Your task to perform on an android device: open wifi settings Image 0: 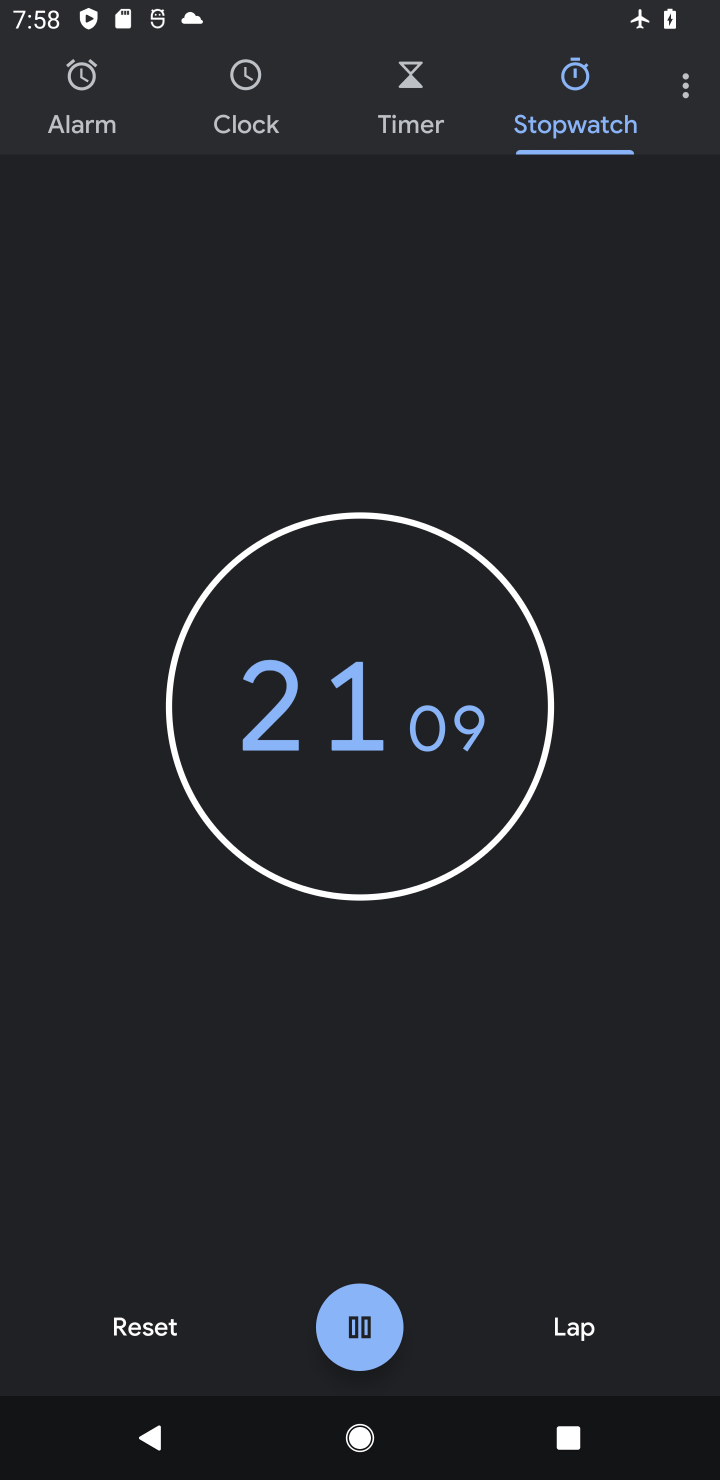
Step 0: press home button
Your task to perform on an android device: open wifi settings Image 1: 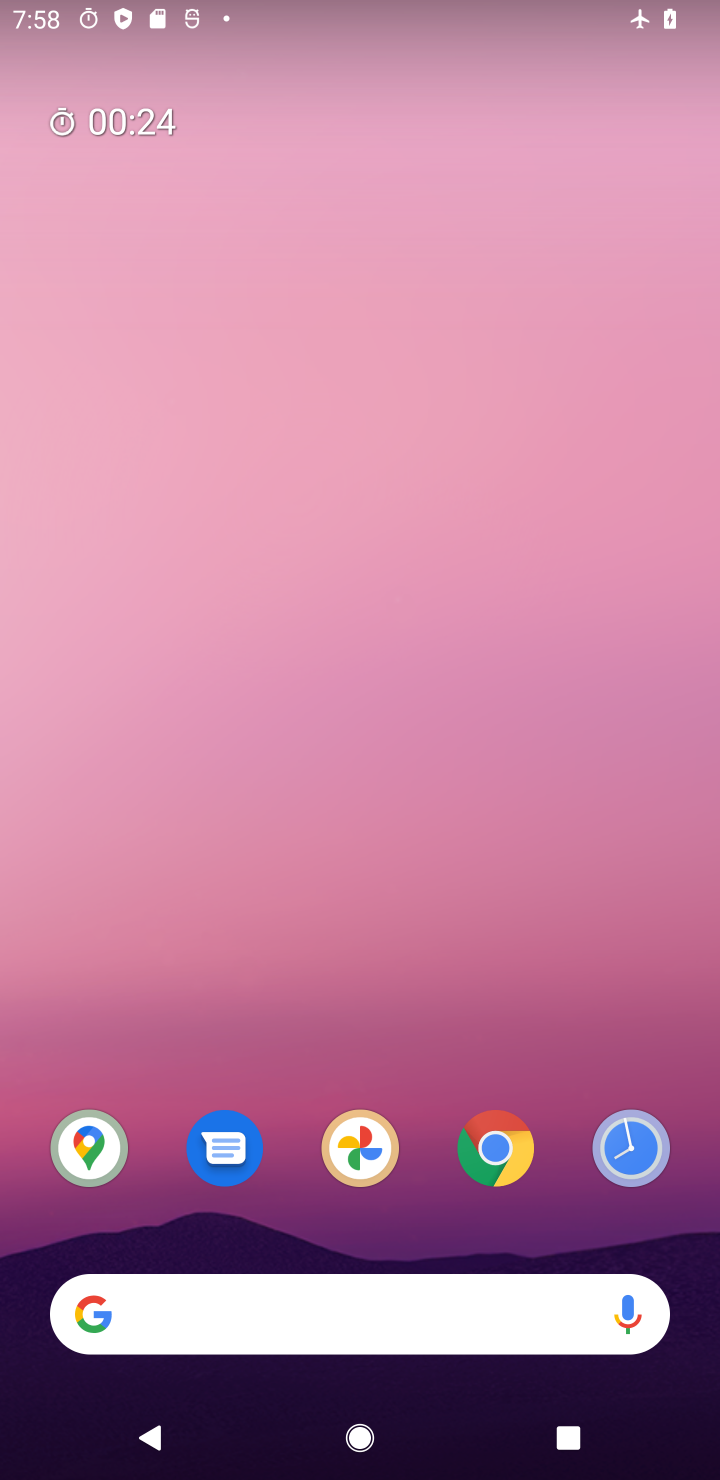
Step 1: drag from (692, 1079) to (460, 206)
Your task to perform on an android device: open wifi settings Image 2: 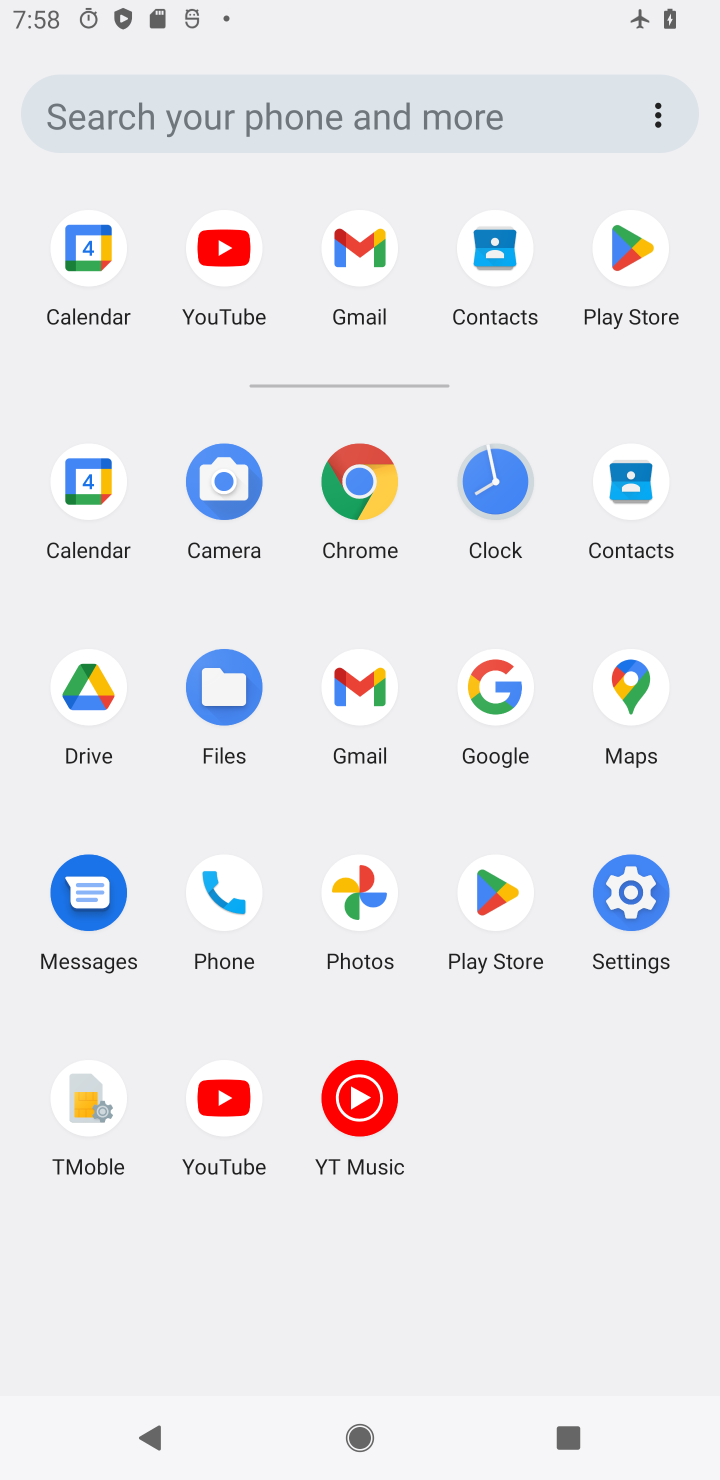
Step 2: click (653, 901)
Your task to perform on an android device: open wifi settings Image 3: 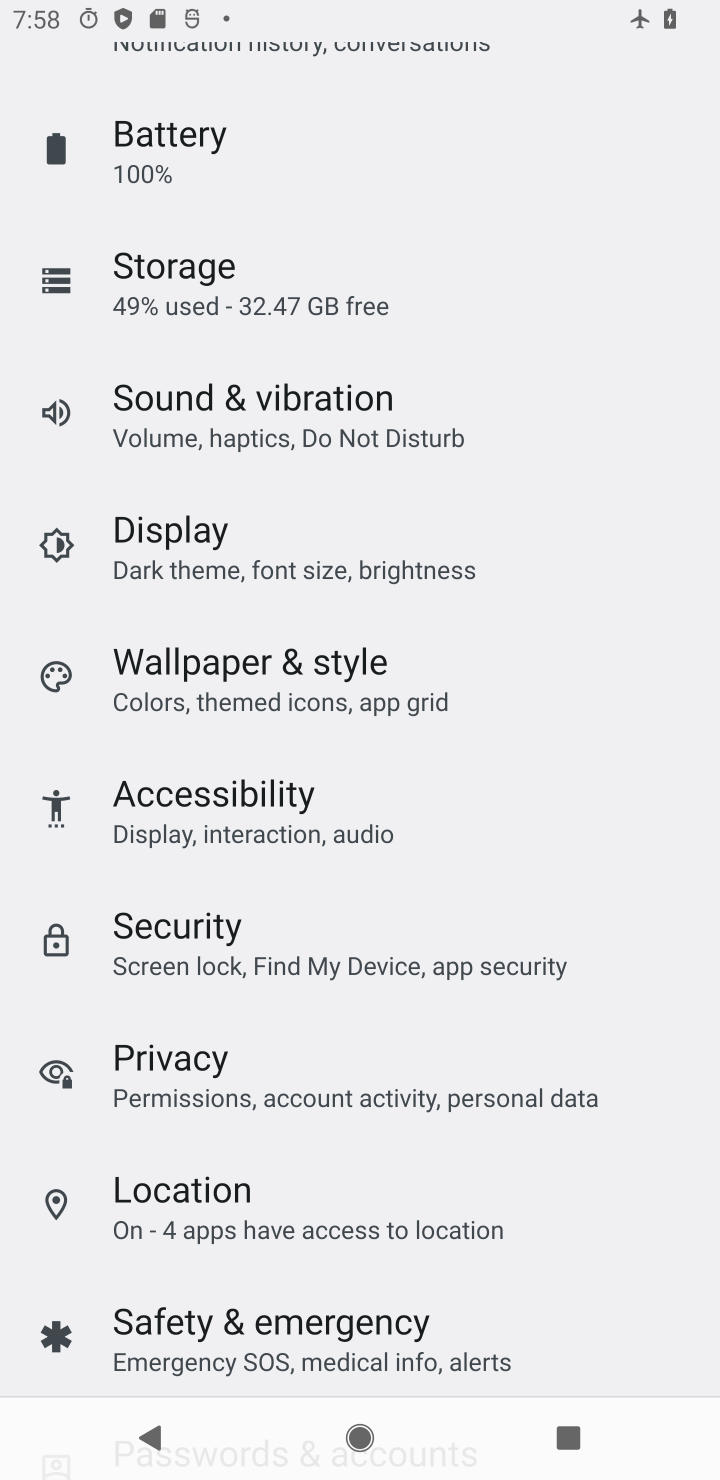
Step 3: drag from (440, 115) to (593, 1187)
Your task to perform on an android device: open wifi settings Image 4: 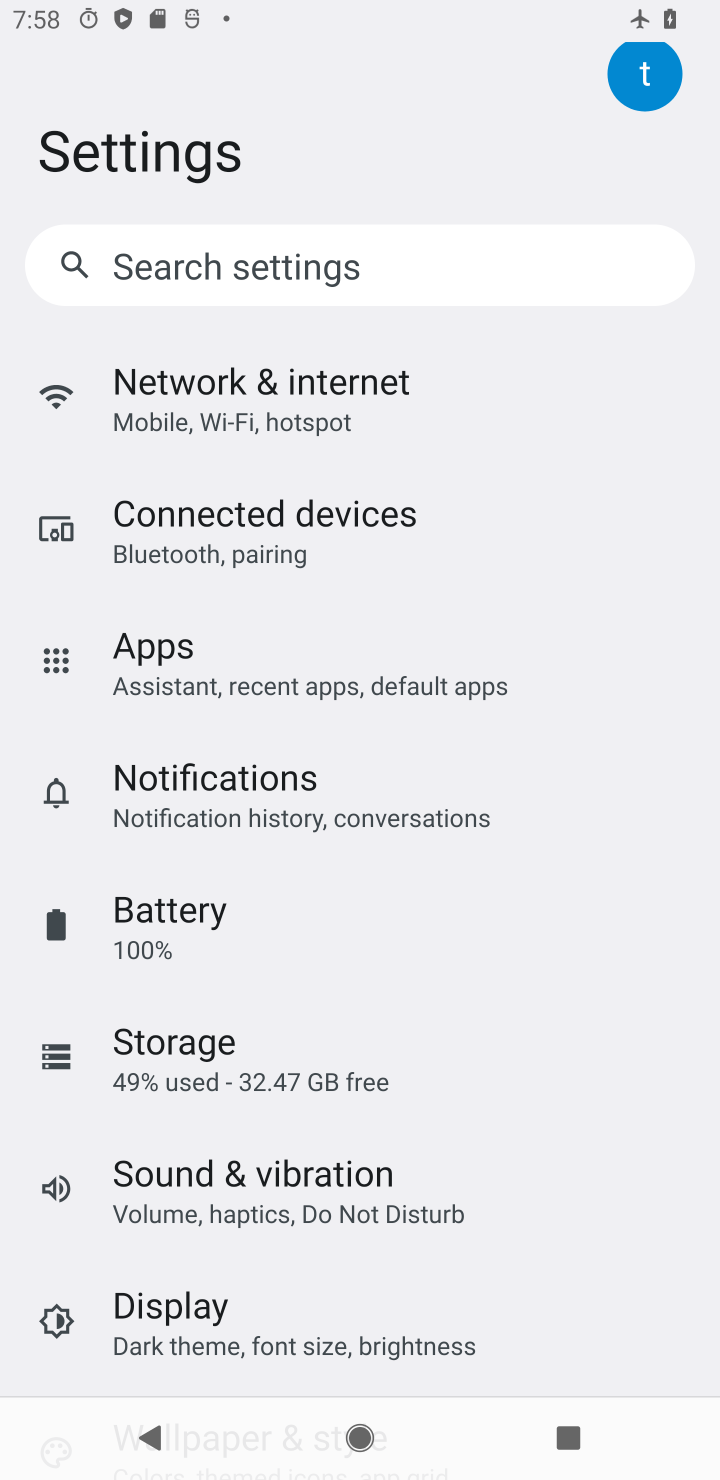
Step 4: click (403, 392)
Your task to perform on an android device: open wifi settings Image 5: 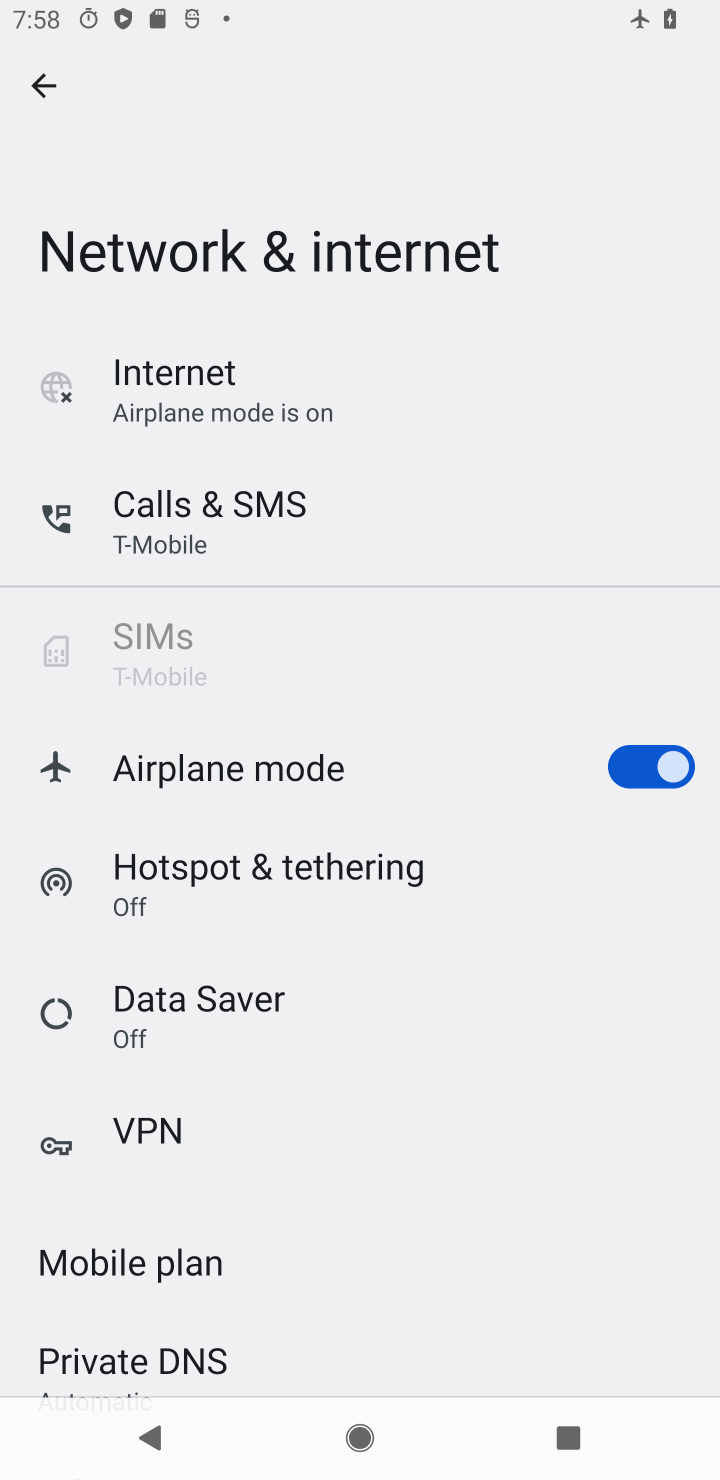
Step 5: click (336, 402)
Your task to perform on an android device: open wifi settings Image 6: 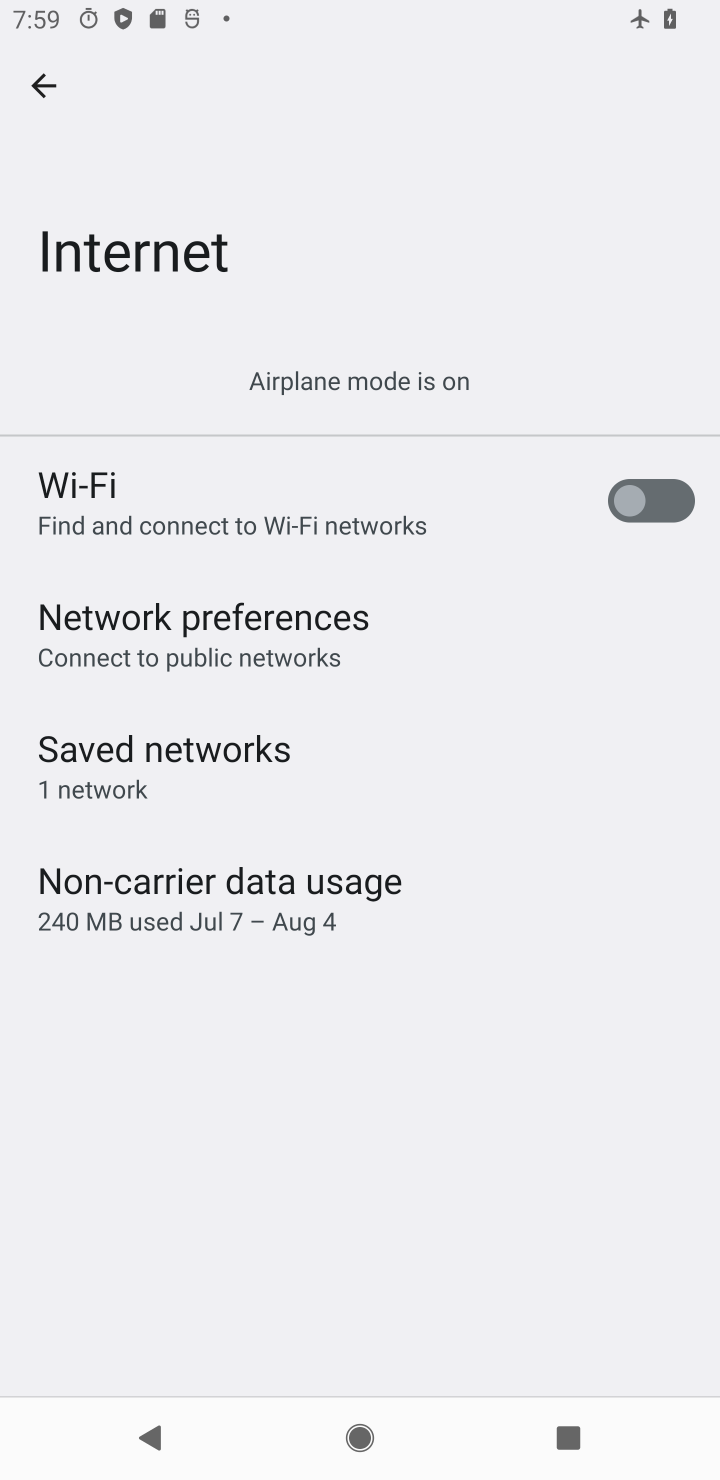
Step 6: task complete